Your task to perform on an android device: allow cookies in the chrome app Image 0: 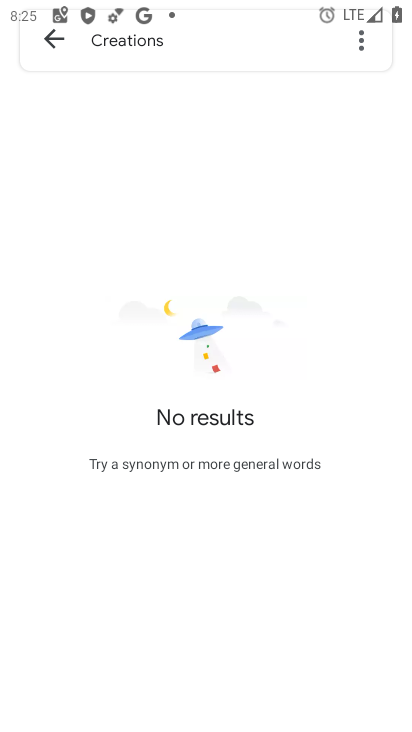
Step 0: press home button
Your task to perform on an android device: allow cookies in the chrome app Image 1: 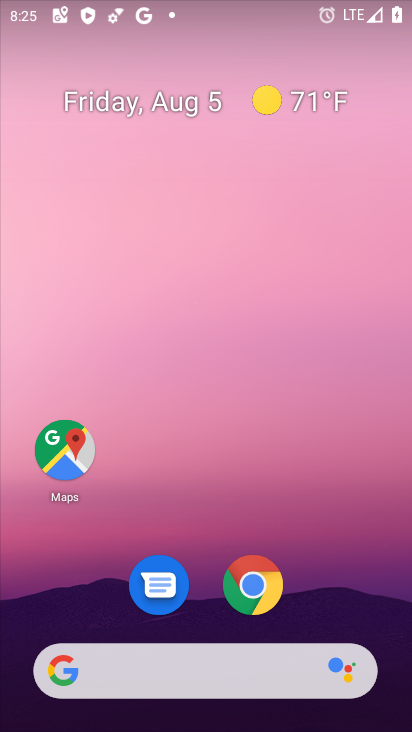
Step 1: click (257, 599)
Your task to perform on an android device: allow cookies in the chrome app Image 2: 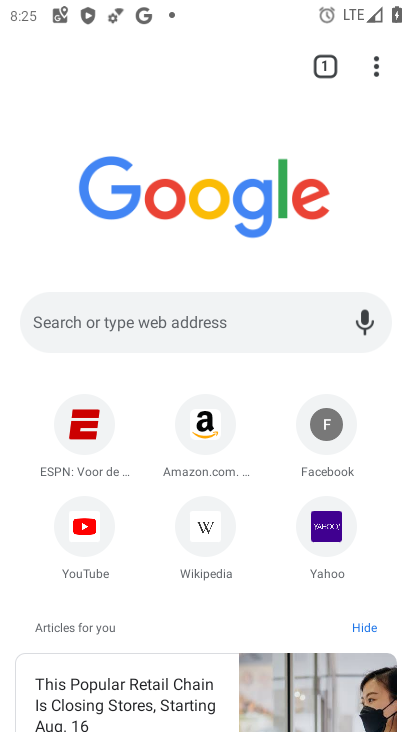
Step 2: click (383, 68)
Your task to perform on an android device: allow cookies in the chrome app Image 3: 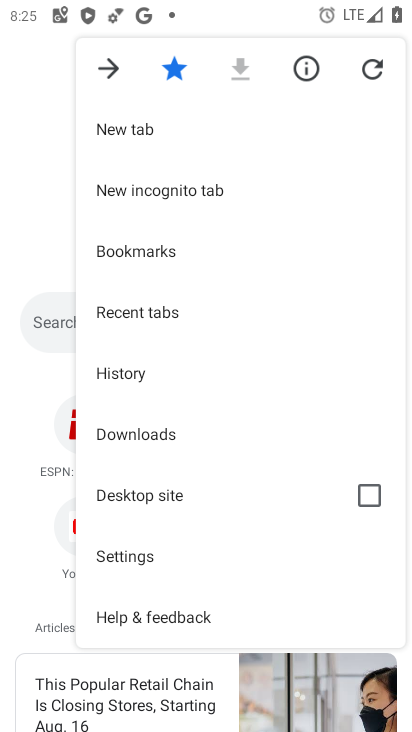
Step 3: click (196, 554)
Your task to perform on an android device: allow cookies in the chrome app Image 4: 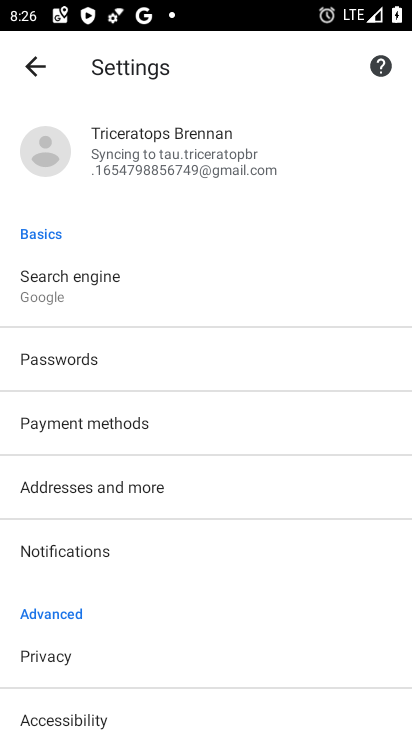
Step 4: drag from (196, 552) to (234, 112)
Your task to perform on an android device: allow cookies in the chrome app Image 5: 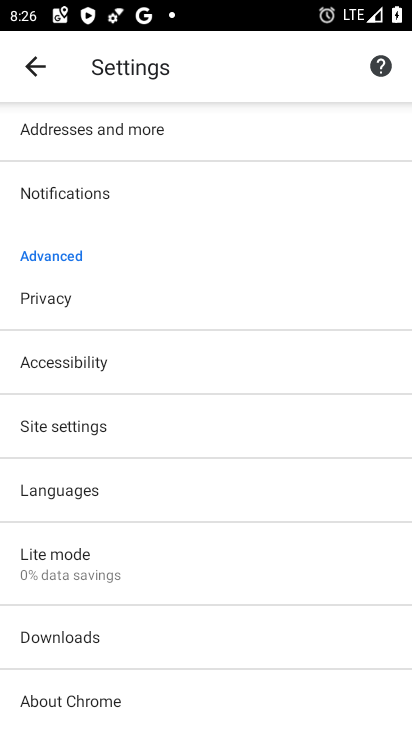
Step 5: click (89, 430)
Your task to perform on an android device: allow cookies in the chrome app Image 6: 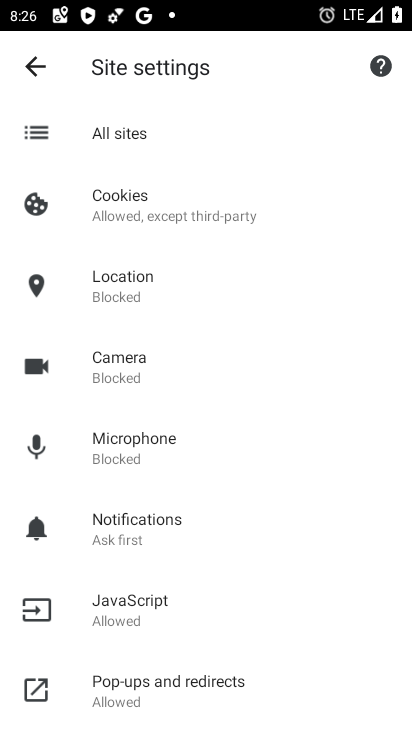
Step 6: click (213, 210)
Your task to perform on an android device: allow cookies in the chrome app Image 7: 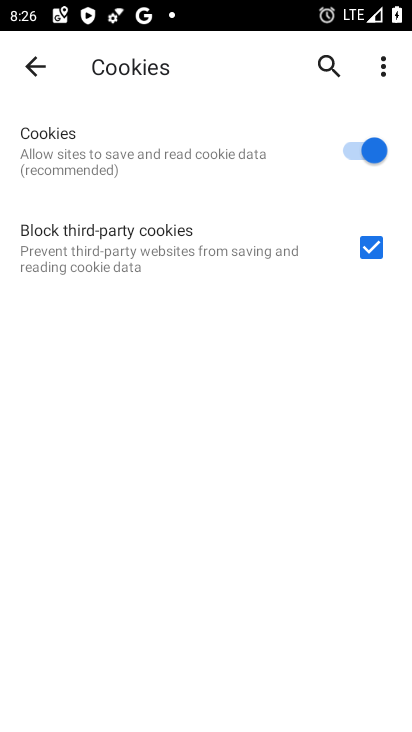
Step 7: task complete